Your task to perform on an android device: turn on bluetooth scan Image 0: 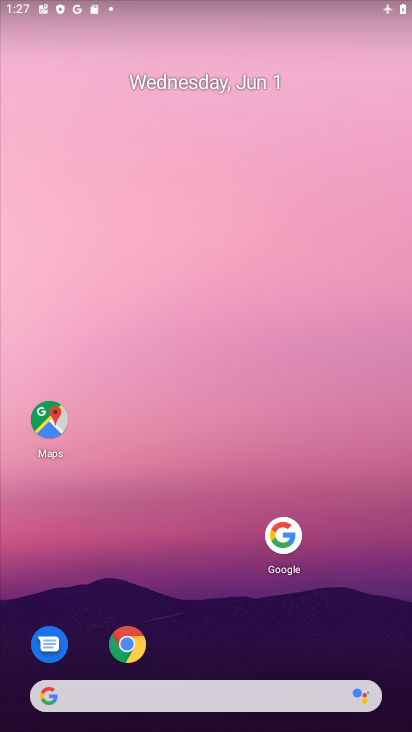
Step 0: drag from (159, 701) to (279, 136)
Your task to perform on an android device: turn on bluetooth scan Image 1: 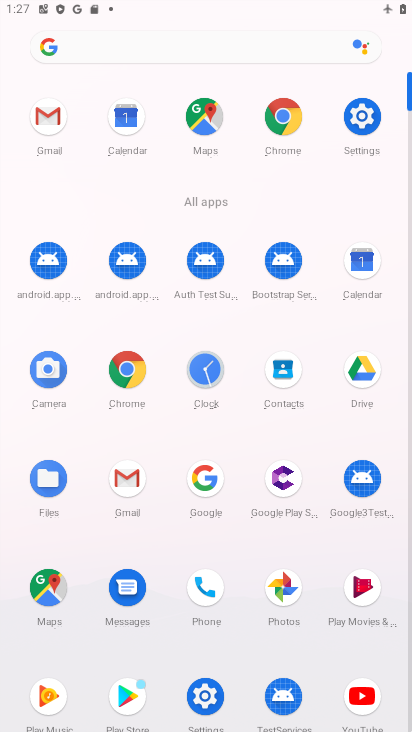
Step 1: click (358, 122)
Your task to perform on an android device: turn on bluetooth scan Image 2: 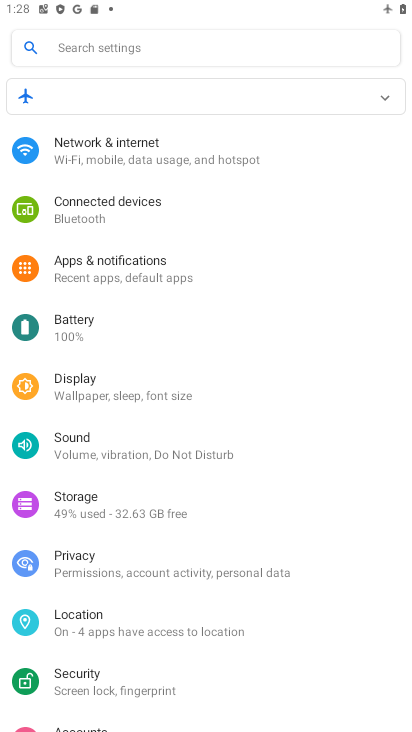
Step 2: click (98, 627)
Your task to perform on an android device: turn on bluetooth scan Image 3: 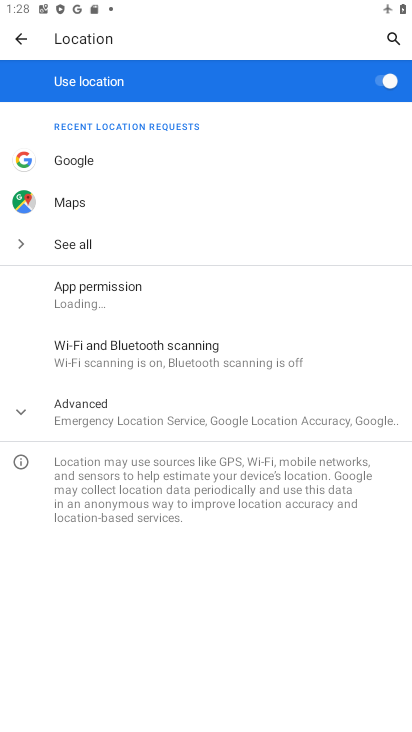
Step 3: click (170, 349)
Your task to perform on an android device: turn on bluetooth scan Image 4: 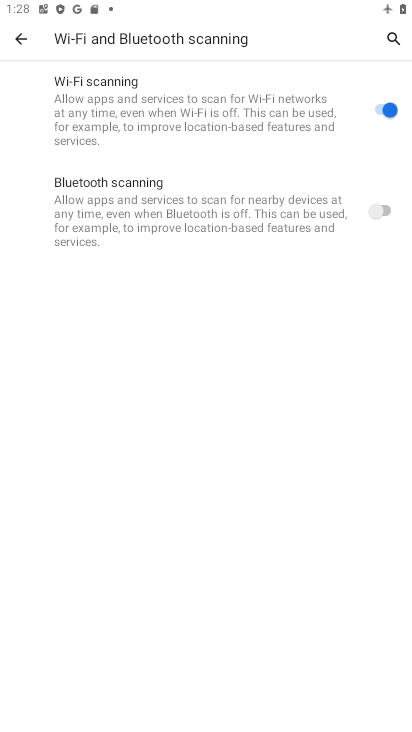
Step 4: click (385, 197)
Your task to perform on an android device: turn on bluetooth scan Image 5: 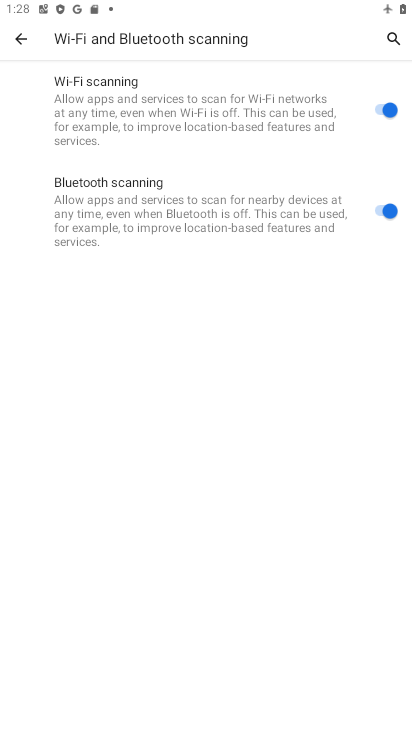
Step 5: task complete